Your task to perform on an android device: What's the latest news in tech? Image 0: 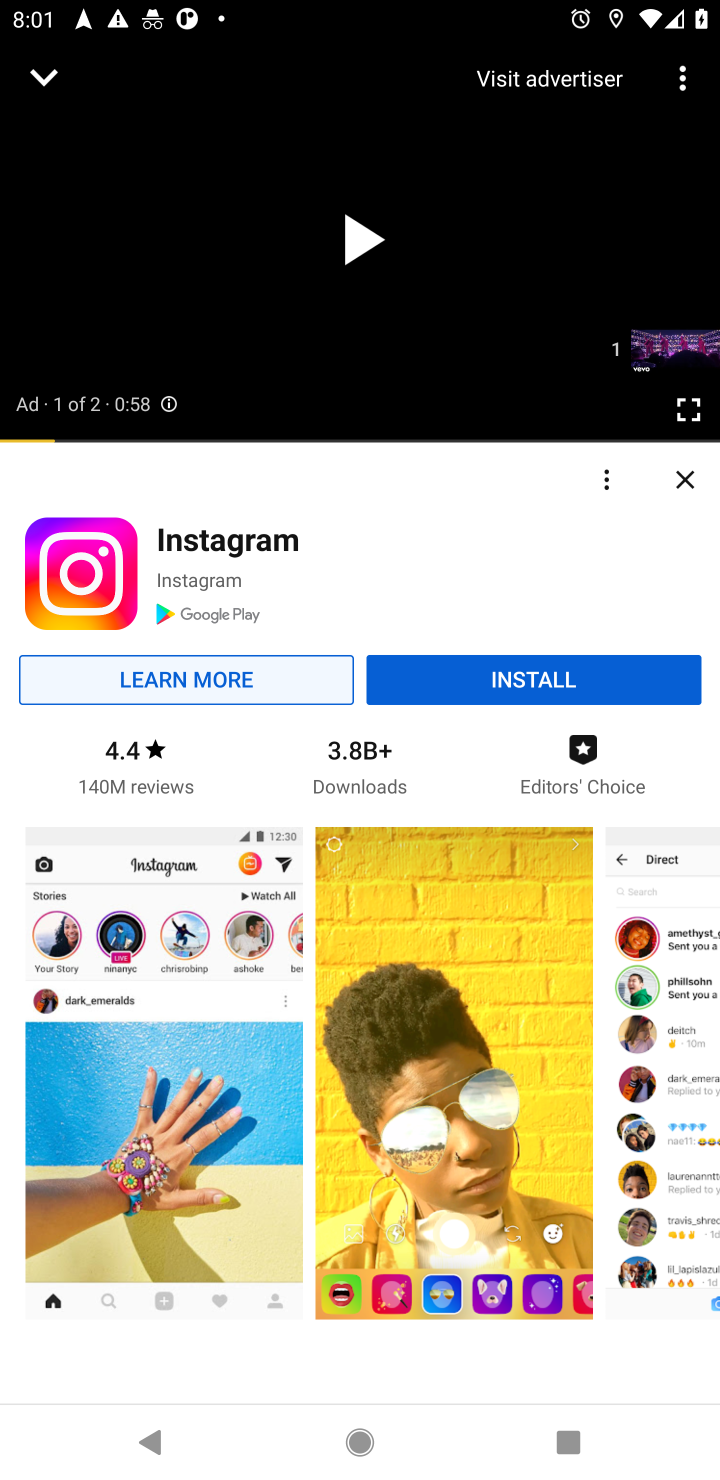
Step 0: press home button
Your task to perform on an android device: What's the latest news in tech? Image 1: 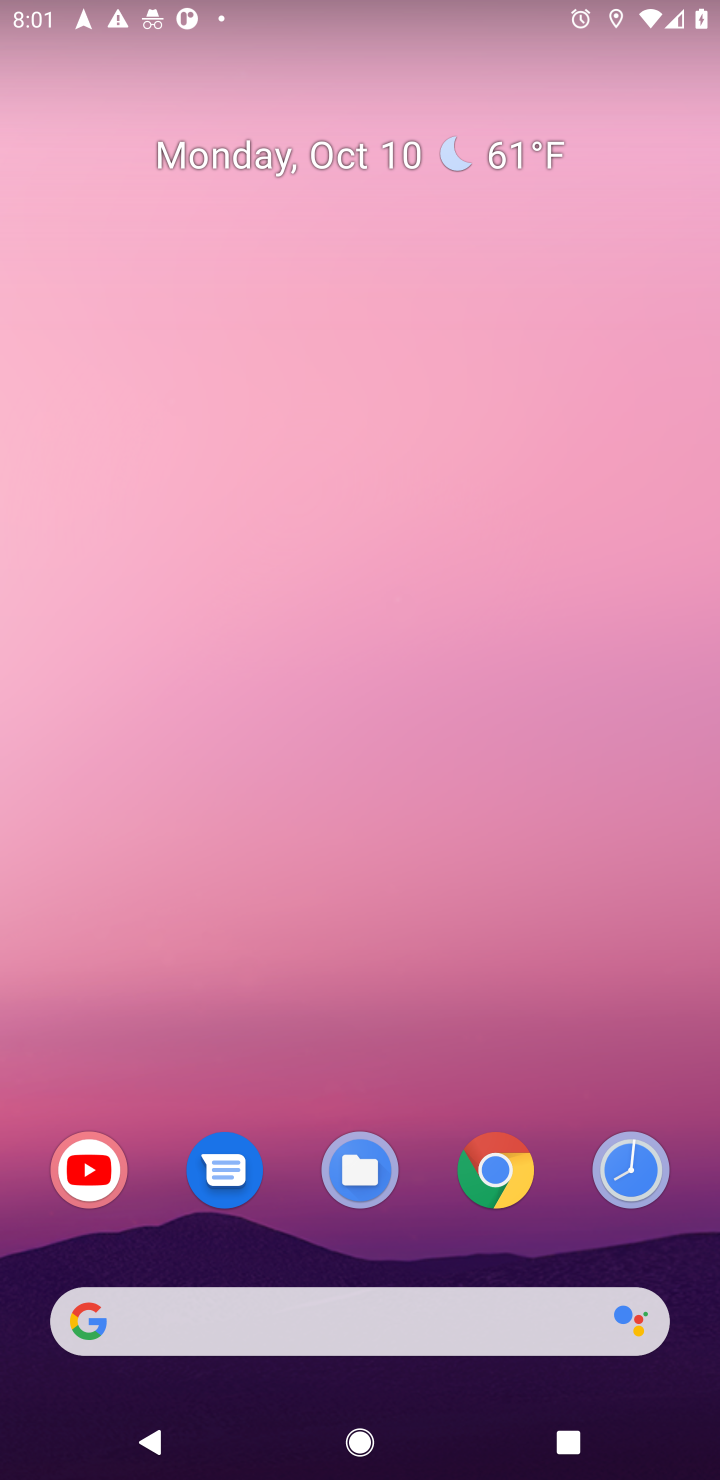
Step 1: click (521, 1199)
Your task to perform on an android device: What's the latest news in tech? Image 2: 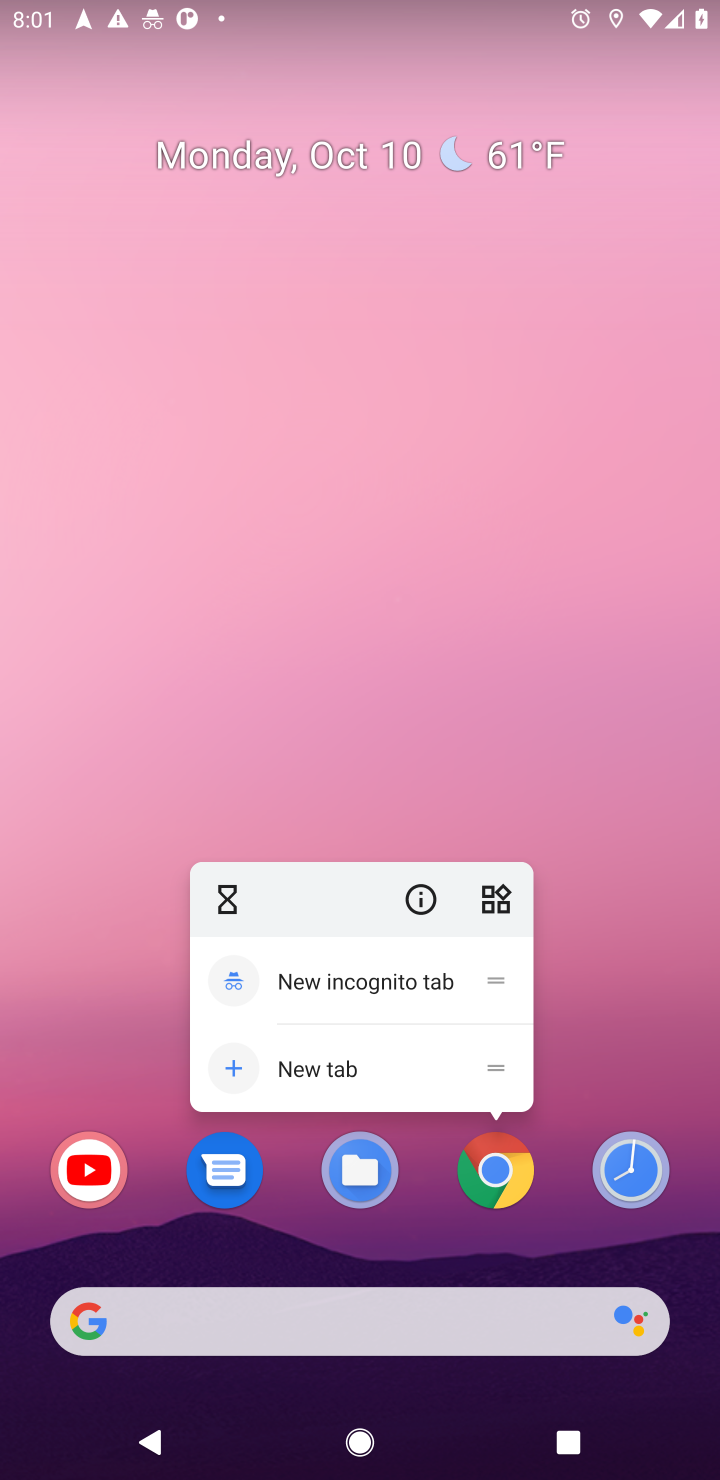
Step 2: click (511, 1194)
Your task to perform on an android device: What's the latest news in tech? Image 3: 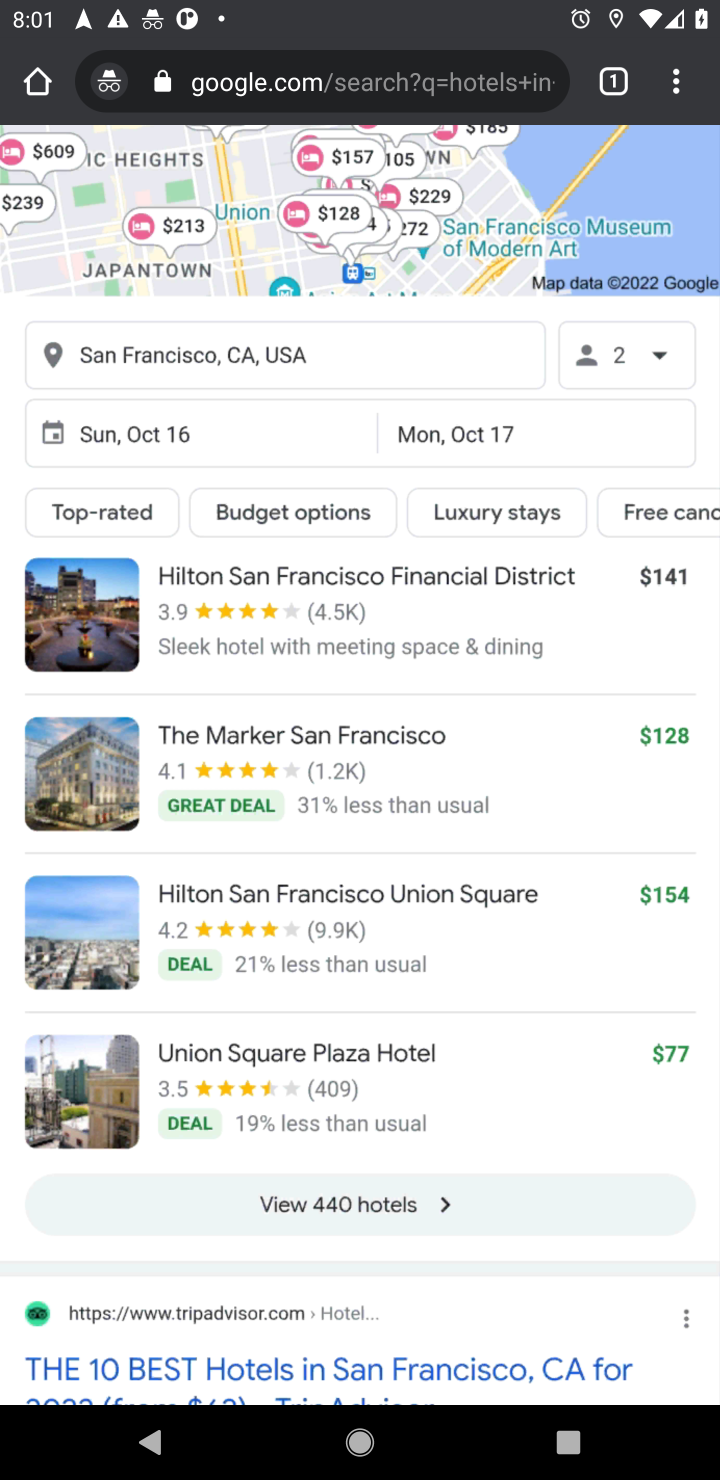
Step 3: click (511, 1194)
Your task to perform on an android device: What's the latest news in tech? Image 4: 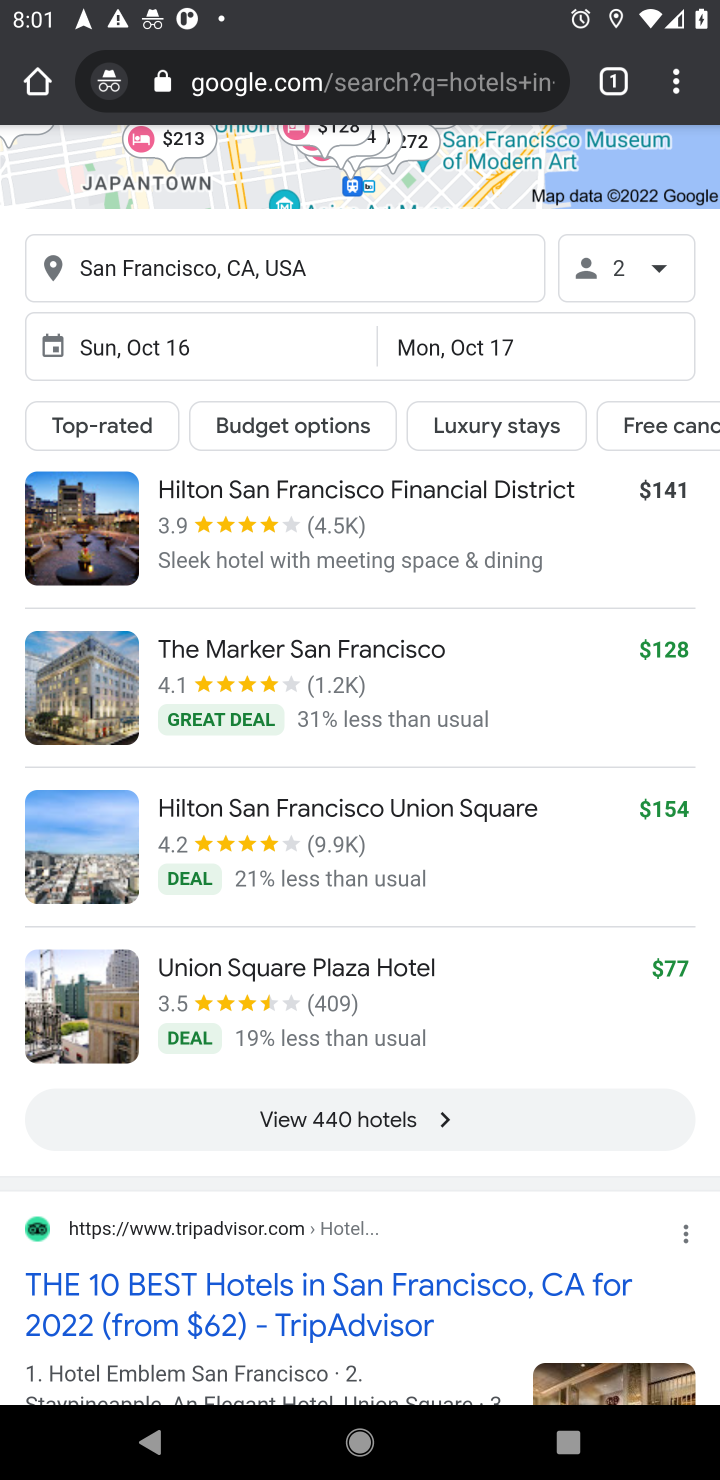
Step 4: drag from (237, 357) to (304, 718)
Your task to perform on an android device: What's the latest news in tech? Image 5: 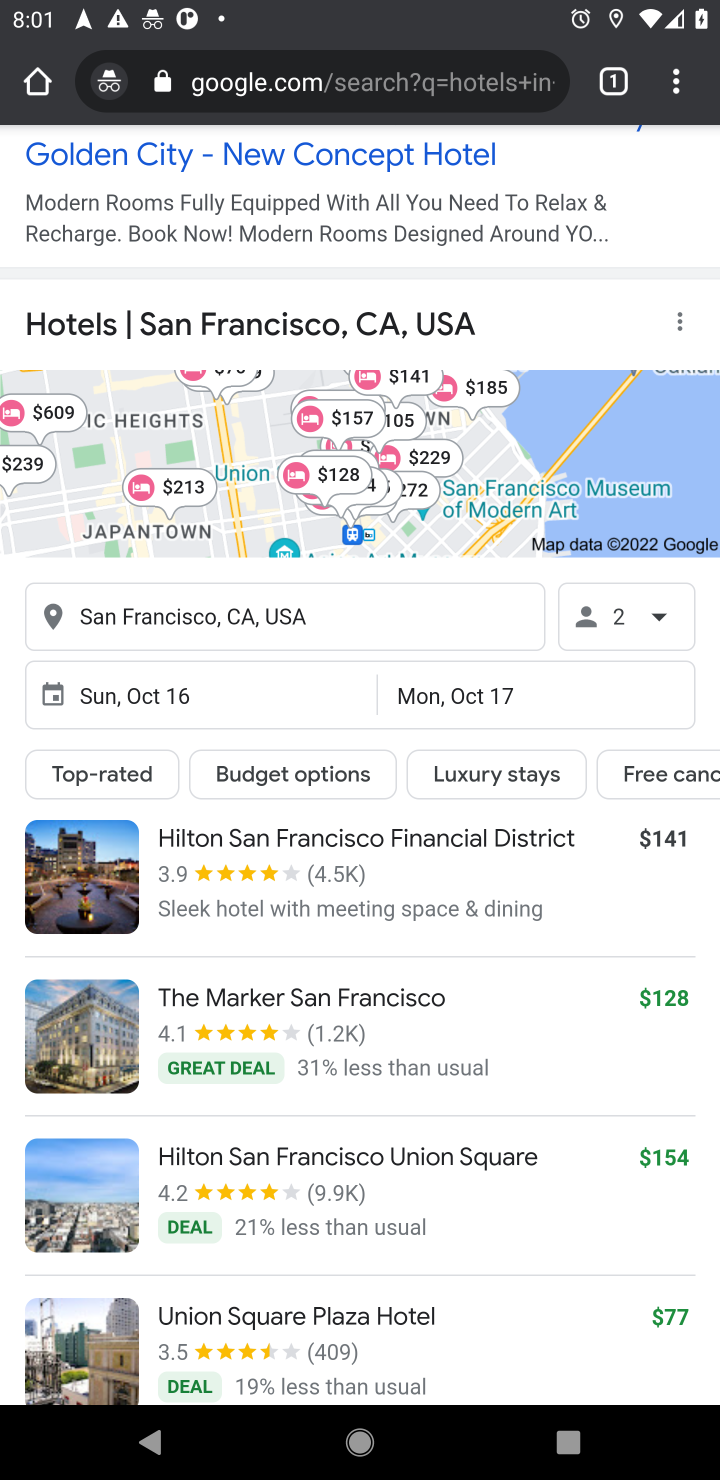
Step 5: click (462, 77)
Your task to perform on an android device: What's the latest news in tech? Image 6: 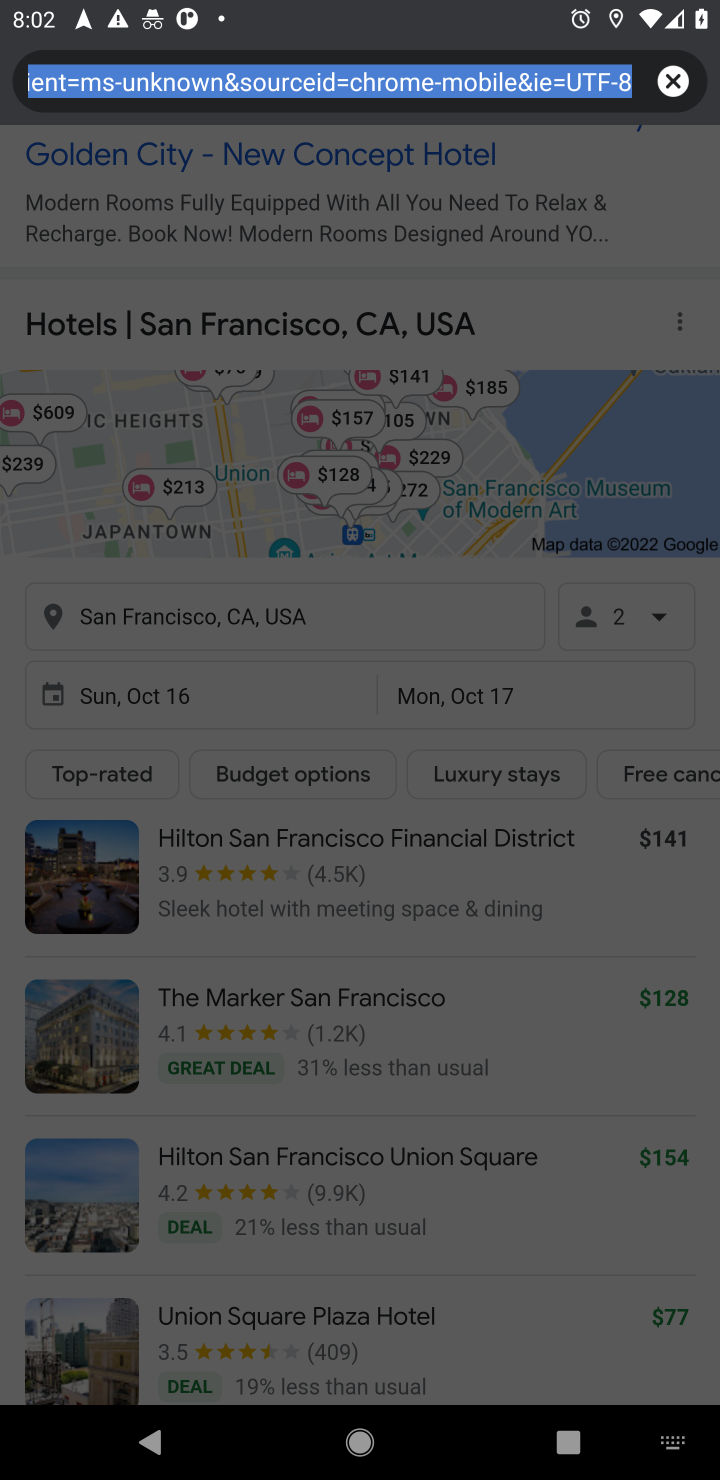
Step 6: type "latest news in tech?"
Your task to perform on an android device: What's the latest news in tech? Image 7: 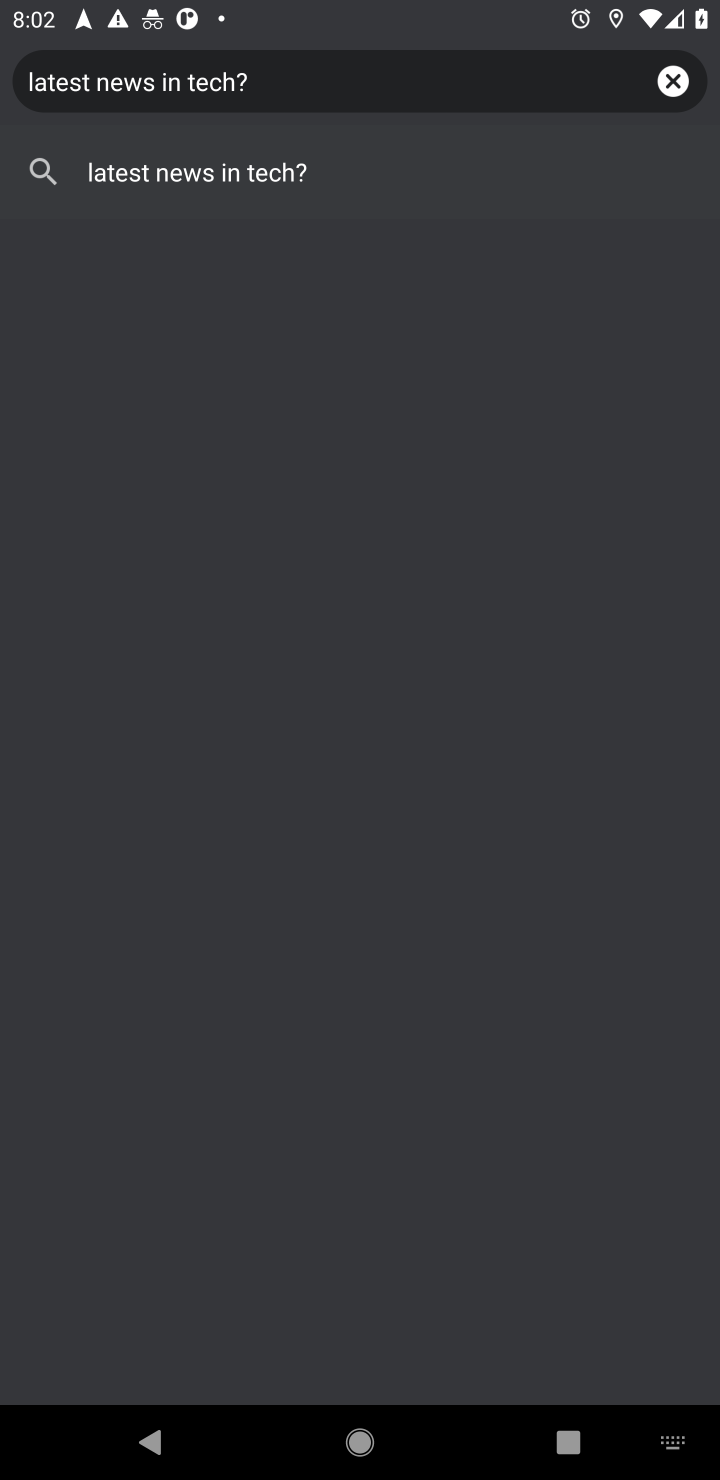
Step 7: click (87, 175)
Your task to perform on an android device: What's the latest news in tech? Image 8: 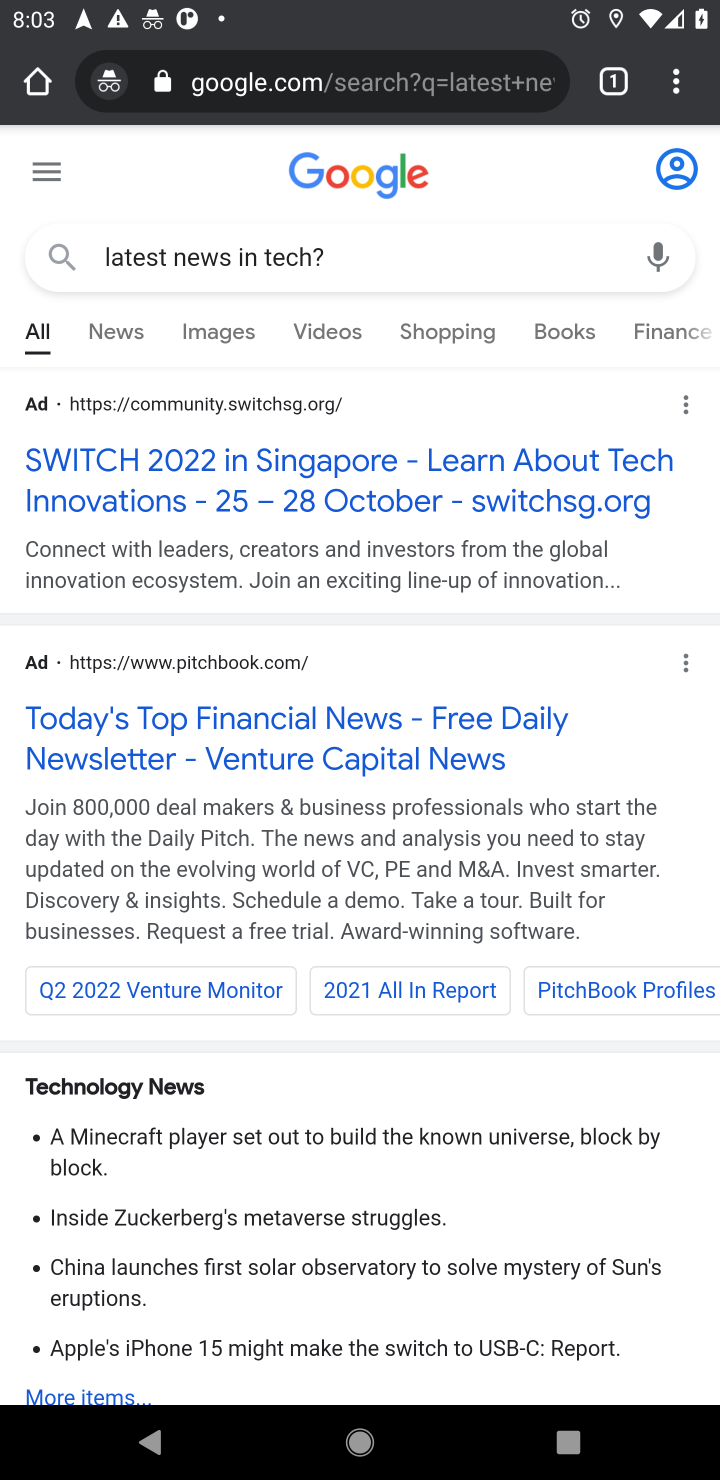
Step 8: click (134, 334)
Your task to perform on an android device: What's the latest news in tech? Image 9: 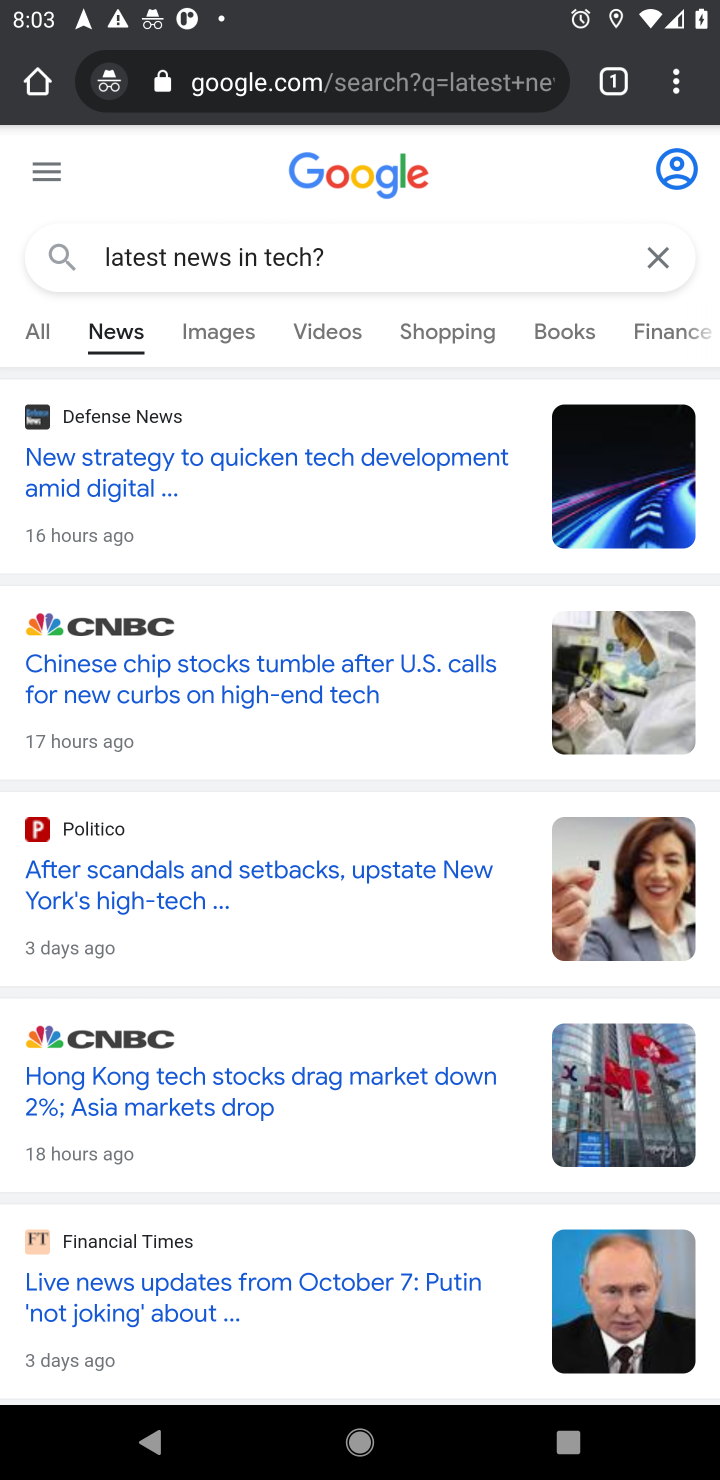
Step 9: task complete